Your task to perform on an android device: set default search engine in the chrome app Image 0: 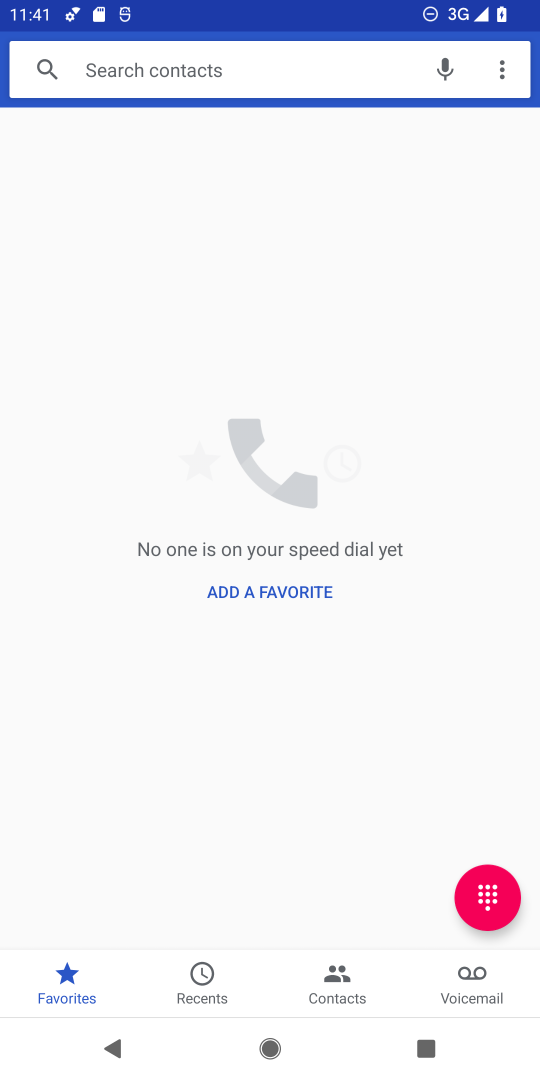
Step 0: press home button
Your task to perform on an android device: set default search engine in the chrome app Image 1: 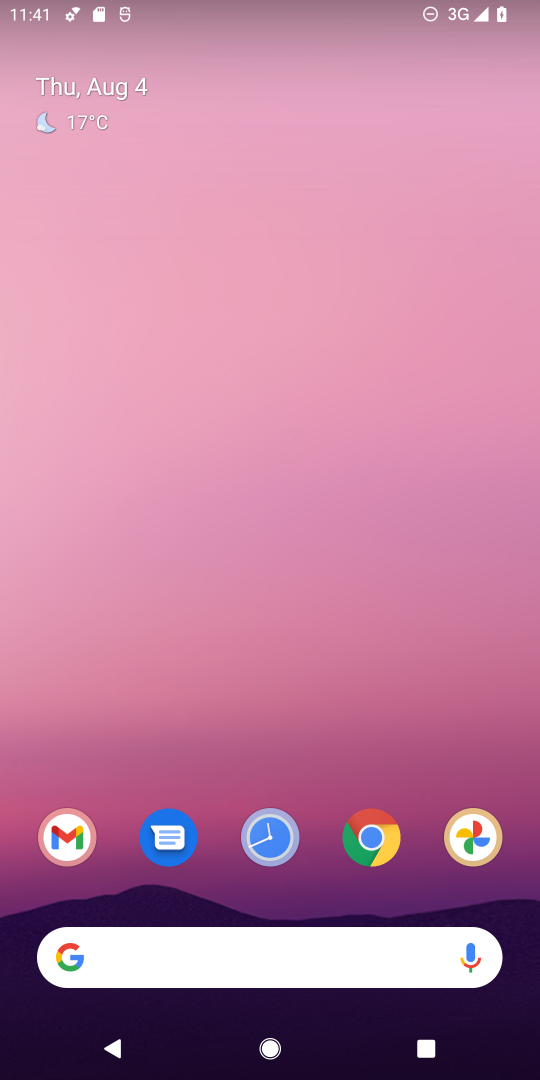
Step 1: drag from (437, 886) to (358, 0)
Your task to perform on an android device: set default search engine in the chrome app Image 2: 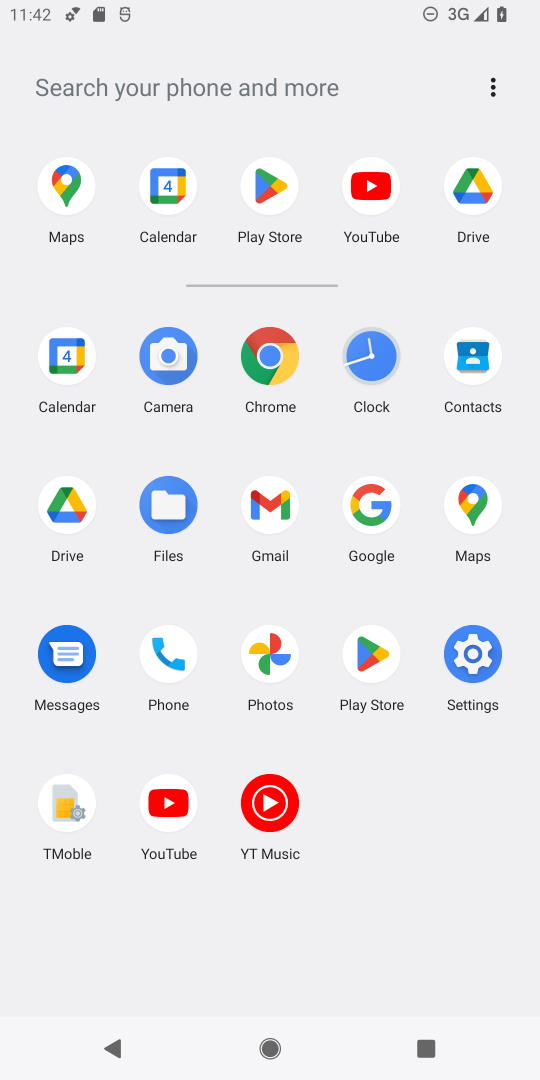
Step 2: click (284, 334)
Your task to perform on an android device: set default search engine in the chrome app Image 3: 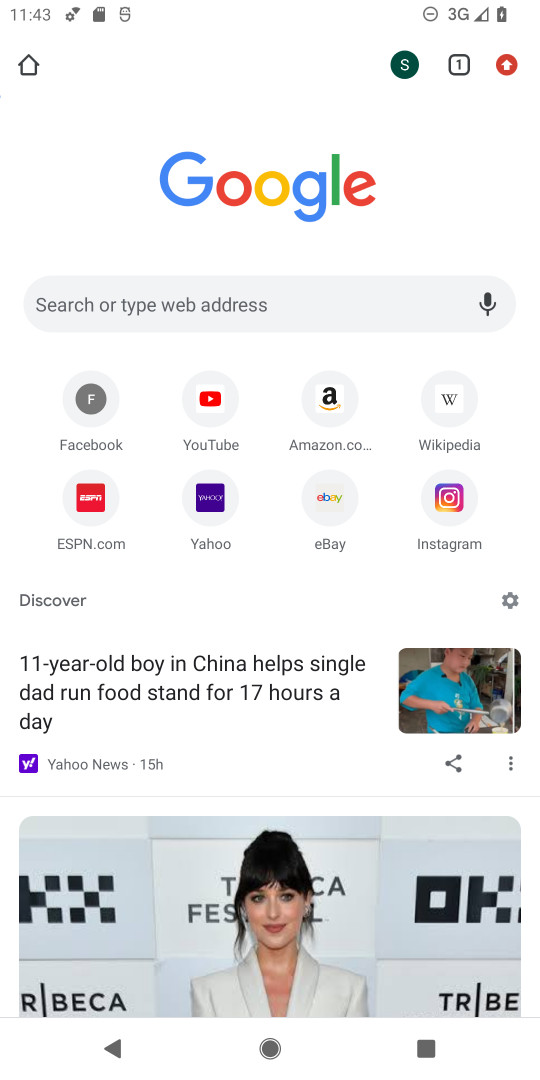
Step 3: click (506, 60)
Your task to perform on an android device: set default search engine in the chrome app Image 4: 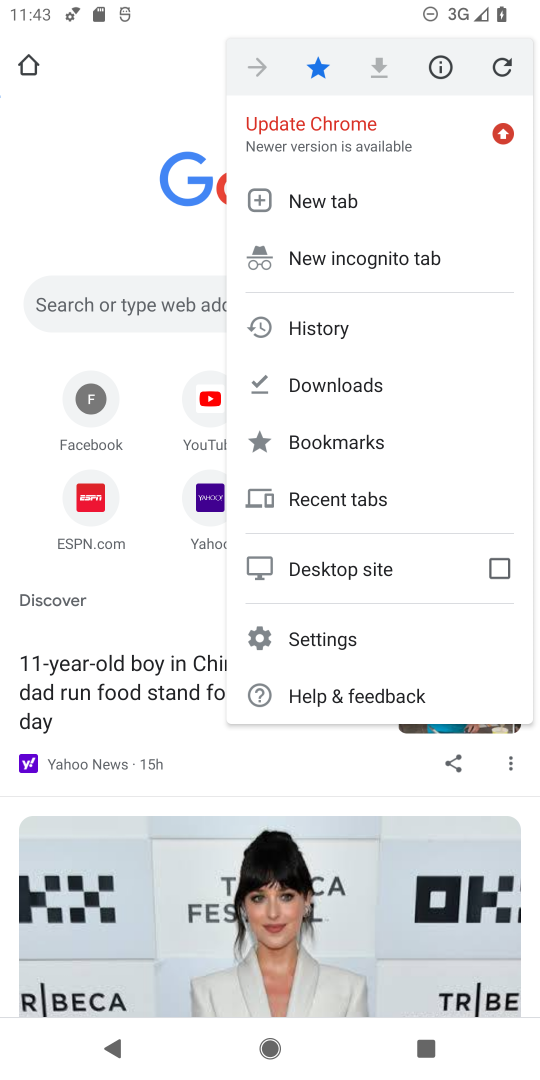
Step 4: click (319, 641)
Your task to perform on an android device: set default search engine in the chrome app Image 5: 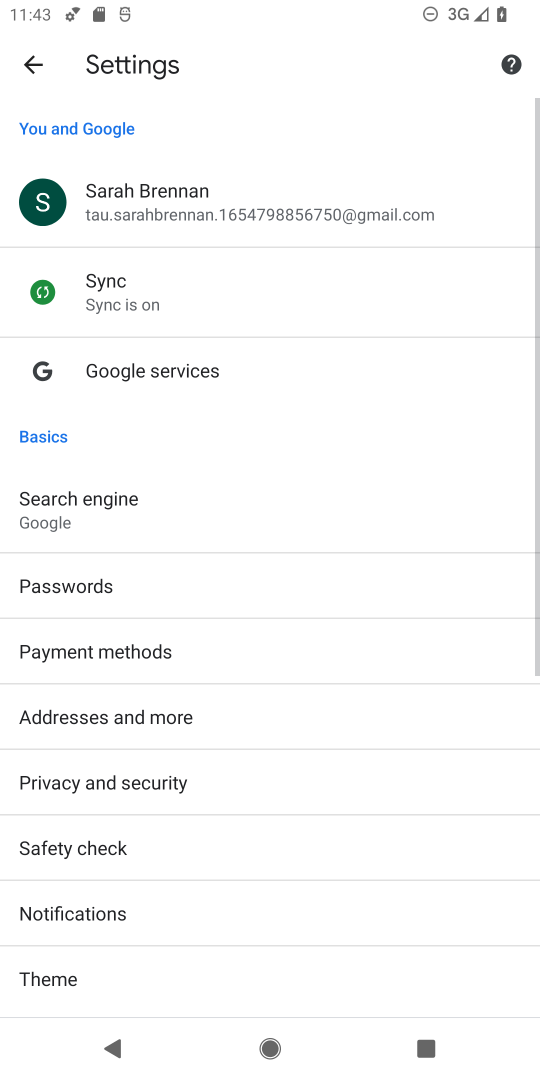
Step 5: click (116, 505)
Your task to perform on an android device: set default search engine in the chrome app Image 6: 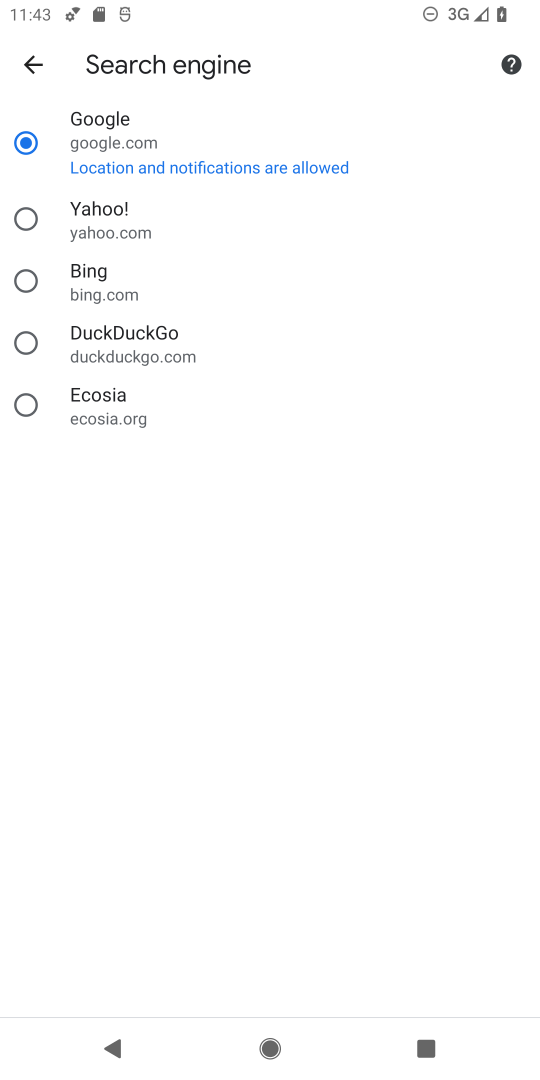
Step 6: click (148, 292)
Your task to perform on an android device: set default search engine in the chrome app Image 7: 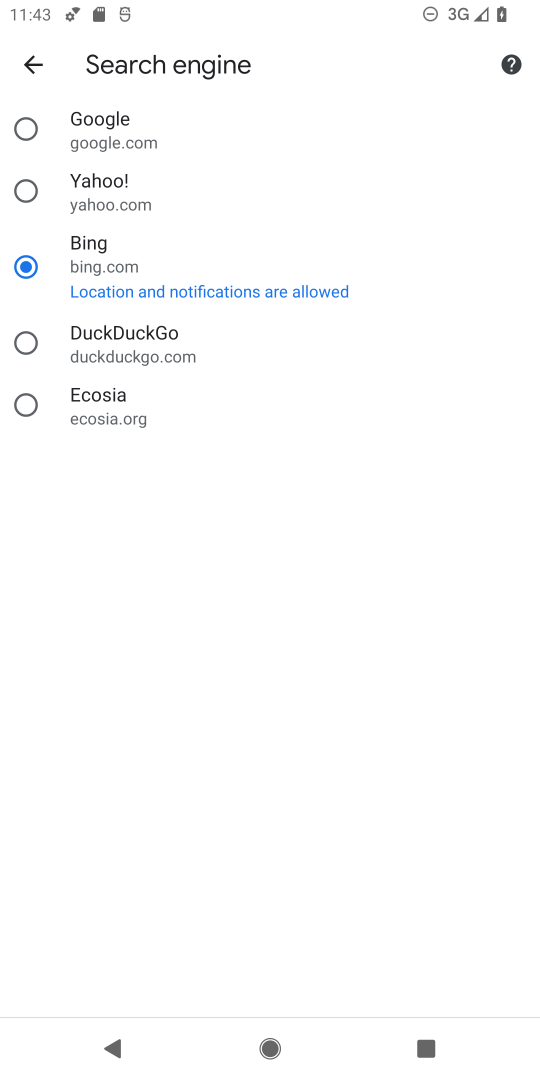
Step 7: task complete